Your task to perform on an android device: Turn off the flashlight Image 0: 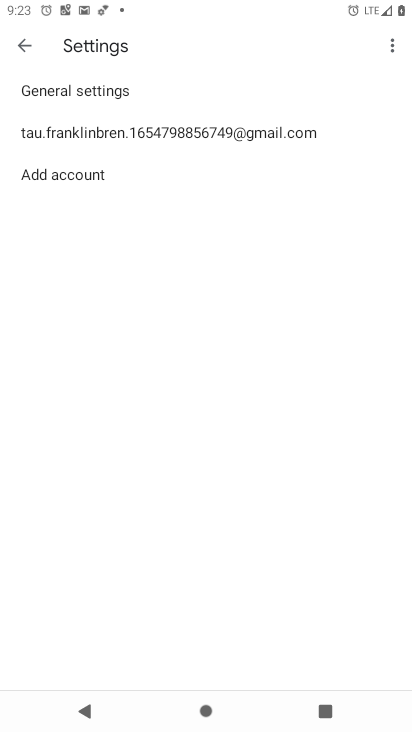
Step 0: press home button
Your task to perform on an android device: Turn off the flashlight Image 1: 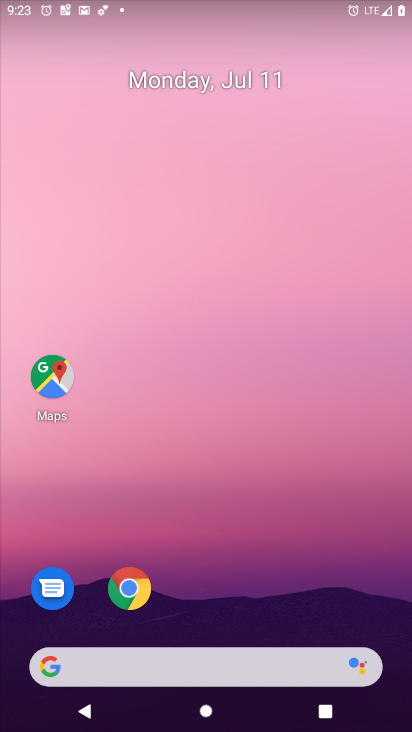
Step 1: task complete